Your task to perform on an android device: Open Chrome and go to the settings page Image 0: 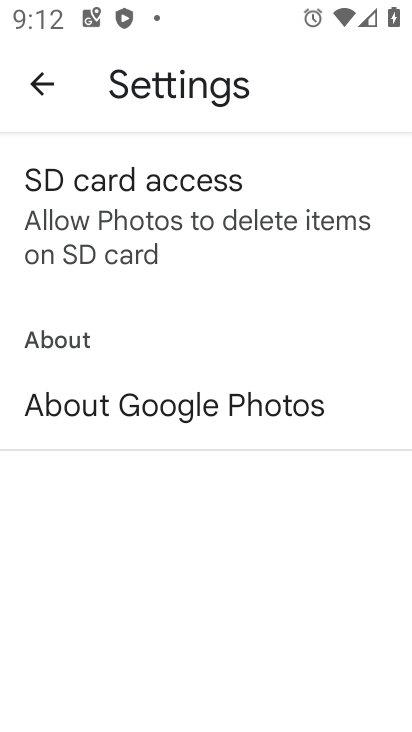
Step 0: press home button
Your task to perform on an android device: Open Chrome and go to the settings page Image 1: 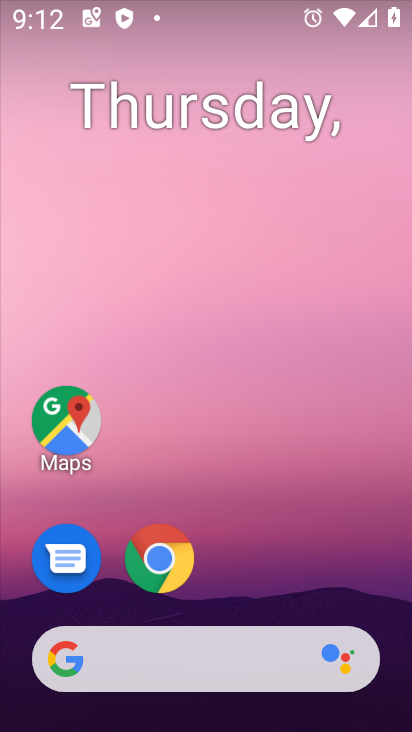
Step 1: drag from (375, 575) to (397, 186)
Your task to perform on an android device: Open Chrome and go to the settings page Image 2: 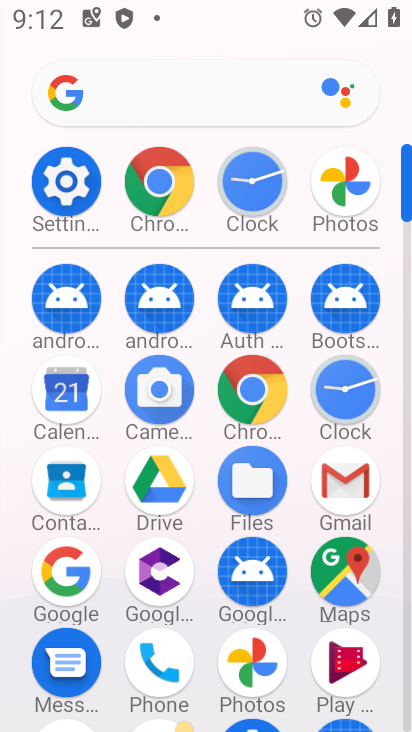
Step 2: click (263, 386)
Your task to perform on an android device: Open Chrome and go to the settings page Image 3: 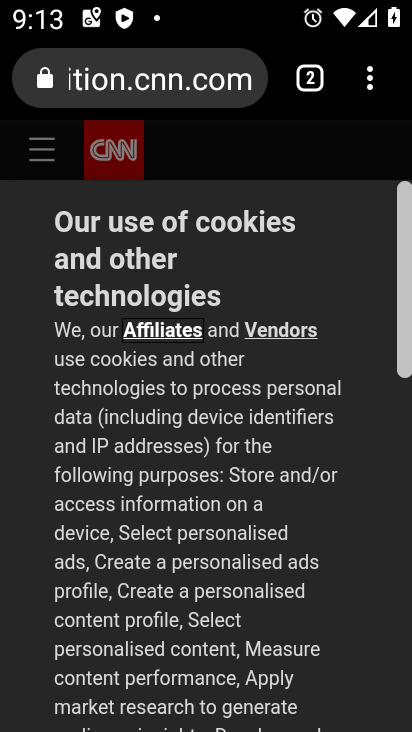
Step 3: click (368, 84)
Your task to perform on an android device: Open Chrome and go to the settings page Image 4: 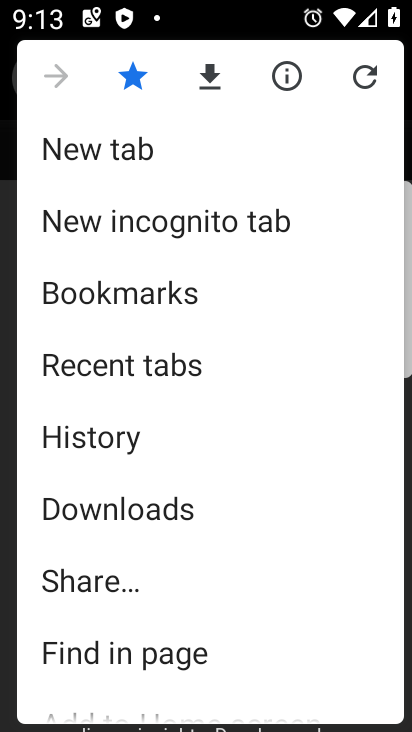
Step 4: drag from (307, 518) to (322, 414)
Your task to perform on an android device: Open Chrome and go to the settings page Image 5: 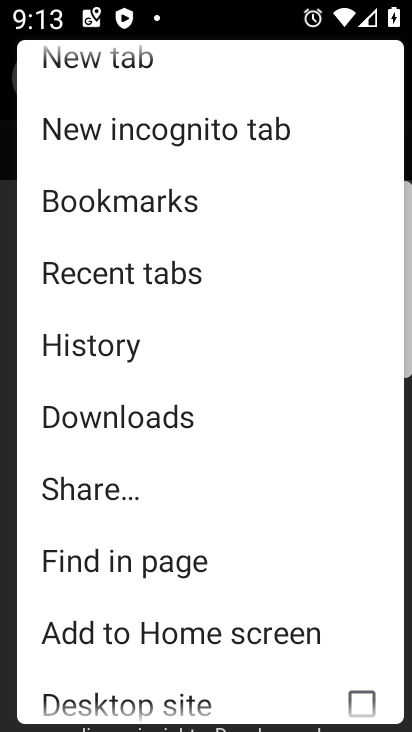
Step 5: drag from (352, 562) to (349, 447)
Your task to perform on an android device: Open Chrome and go to the settings page Image 6: 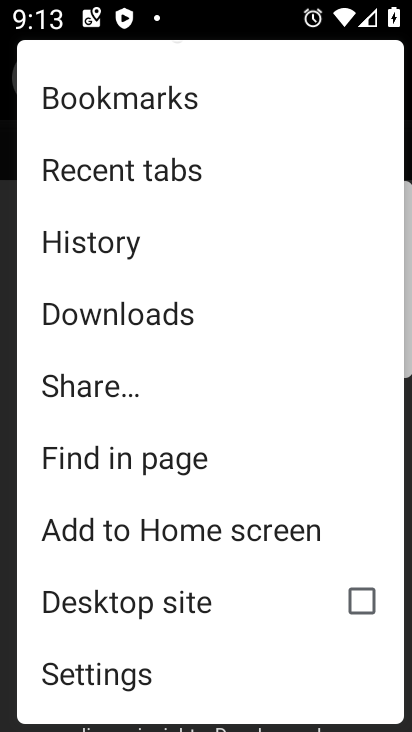
Step 6: drag from (307, 595) to (315, 527)
Your task to perform on an android device: Open Chrome and go to the settings page Image 7: 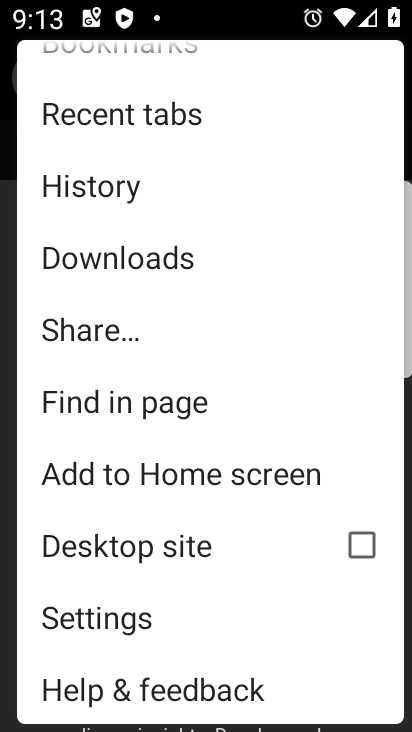
Step 7: click (237, 623)
Your task to perform on an android device: Open Chrome and go to the settings page Image 8: 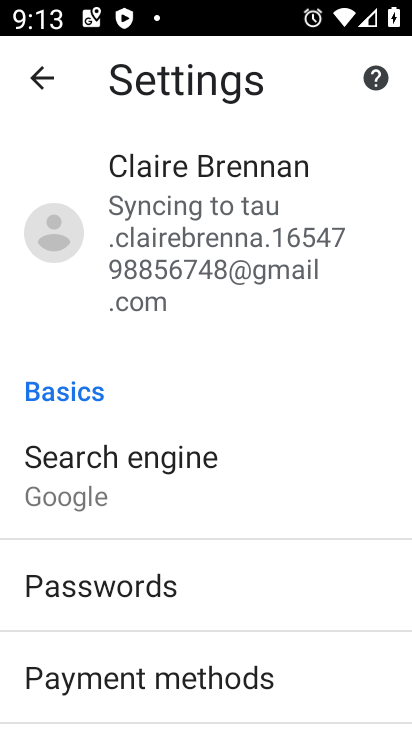
Step 8: task complete